Your task to perform on an android device: Go to accessibility settings Image 0: 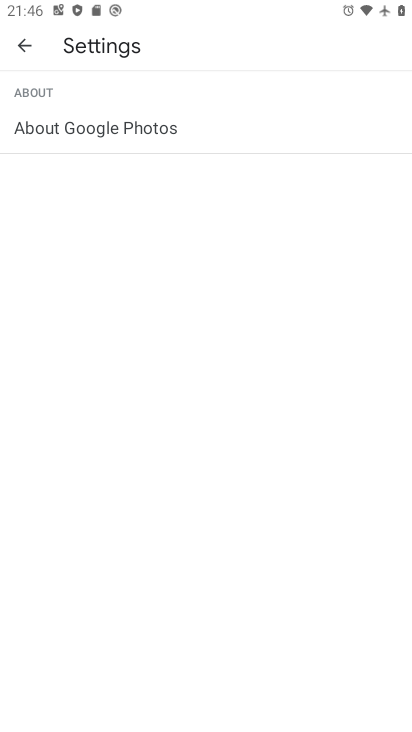
Step 0: press home button
Your task to perform on an android device: Go to accessibility settings Image 1: 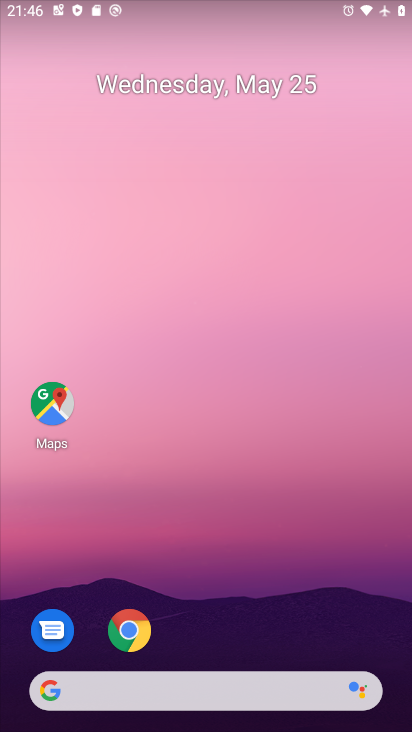
Step 1: drag from (216, 632) to (224, 248)
Your task to perform on an android device: Go to accessibility settings Image 2: 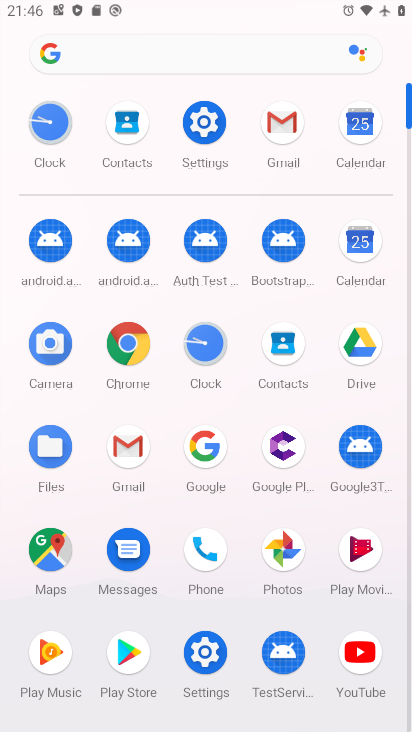
Step 2: click (215, 133)
Your task to perform on an android device: Go to accessibility settings Image 3: 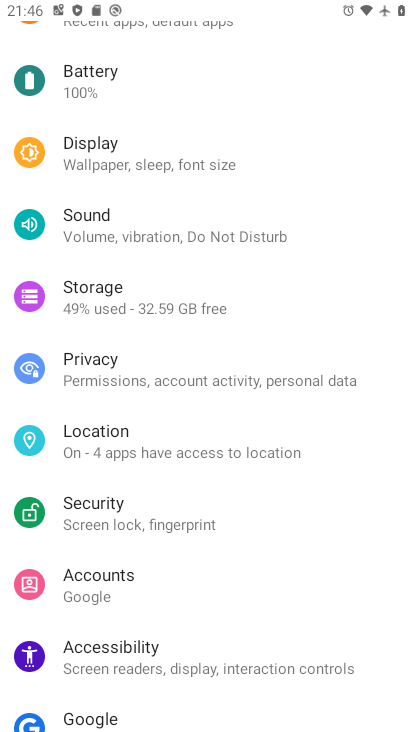
Step 3: click (128, 639)
Your task to perform on an android device: Go to accessibility settings Image 4: 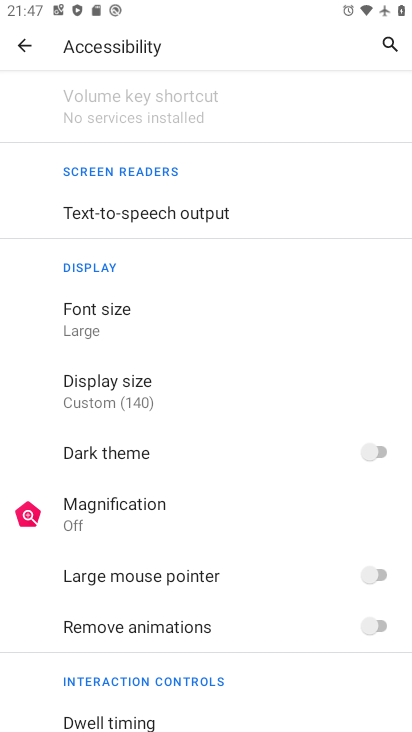
Step 4: task complete